Your task to perform on an android device: Go to sound settings Image 0: 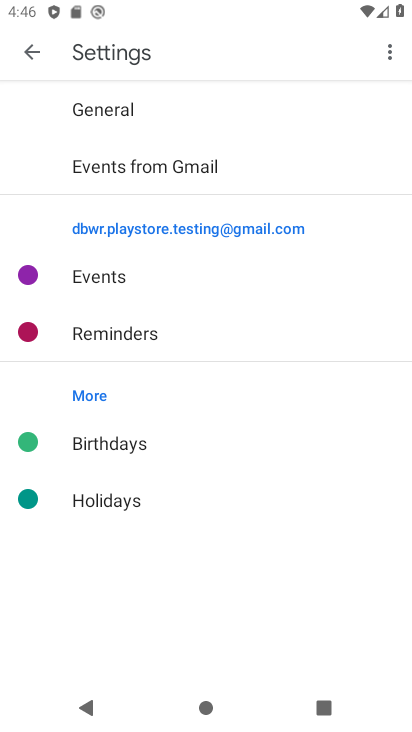
Step 0: drag from (270, 693) to (205, 240)
Your task to perform on an android device: Go to sound settings Image 1: 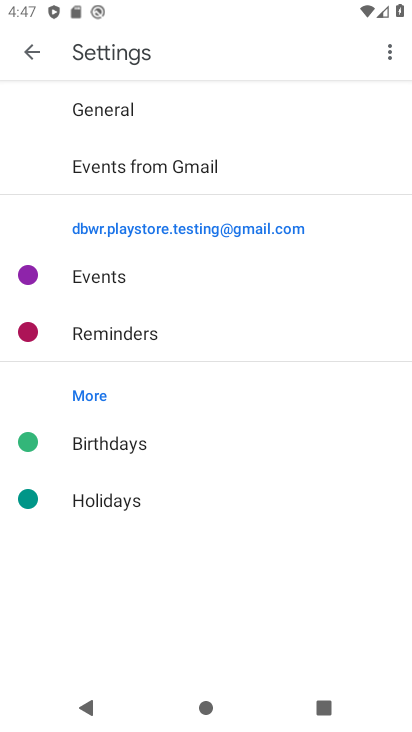
Step 1: click (33, 55)
Your task to perform on an android device: Go to sound settings Image 2: 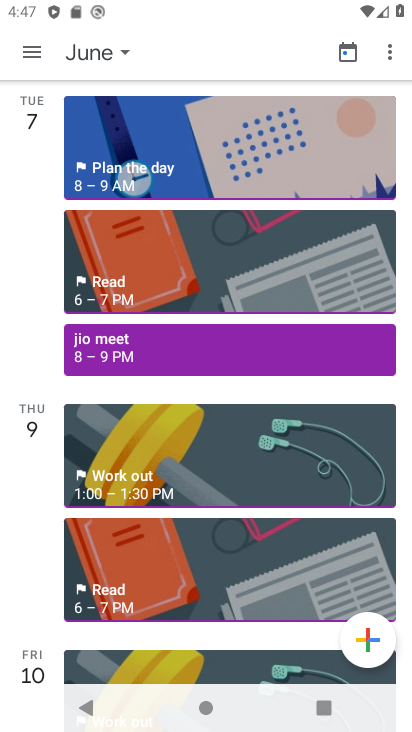
Step 2: press back button
Your task to perform on an android device: Go to sound settings Image 3: 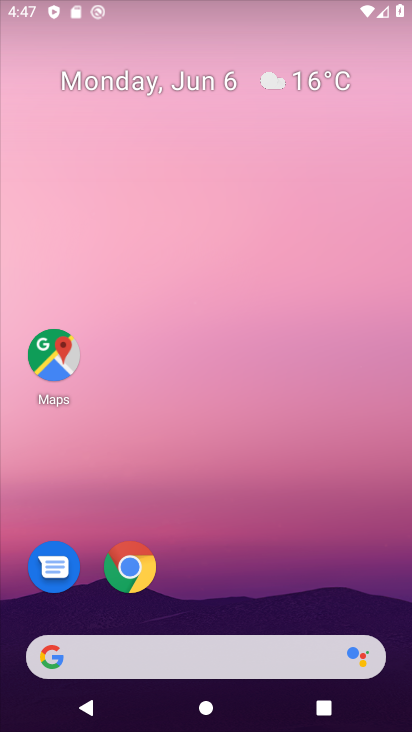
Step 3: drag from (234, 575) to (115, 91)
Your task to perform on an android device: Go to sound settings Image 4: 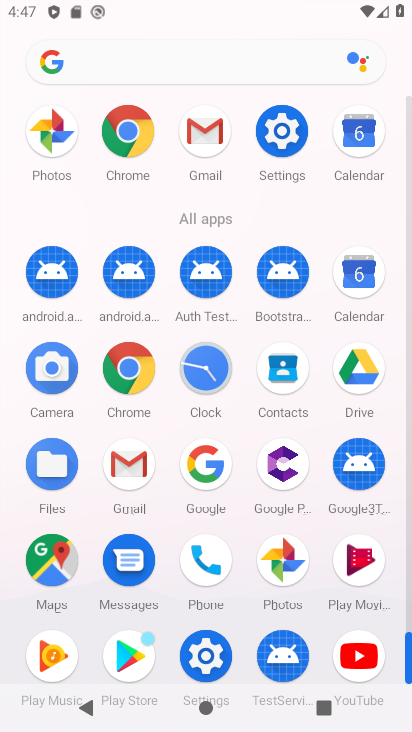
Step 4: click (286, 129)
Your task to perform on an android device: Go to sound settings Image 5: 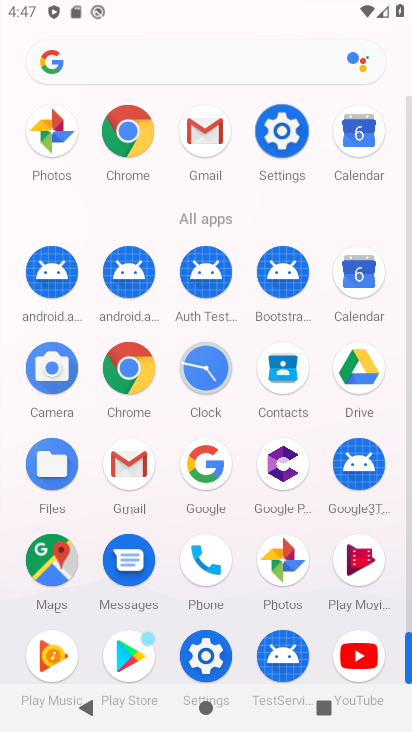
Step 5: click (286, 129)
Your task to perform on an android device: Go to sound settings Image 6: 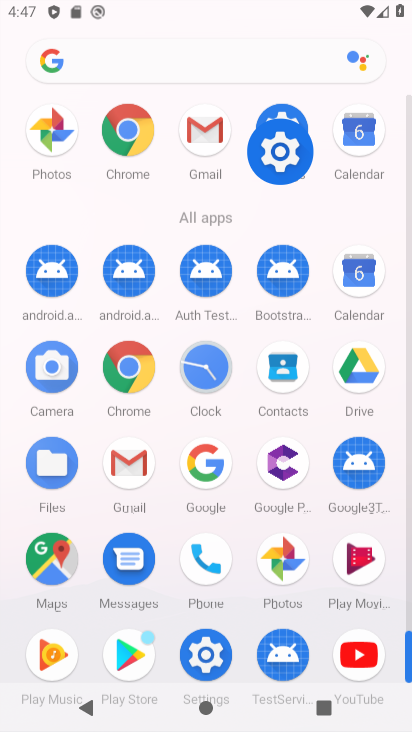
Step 6: click (286, 129)
Your task to perform on an android device: Go to sound settings Image 7: 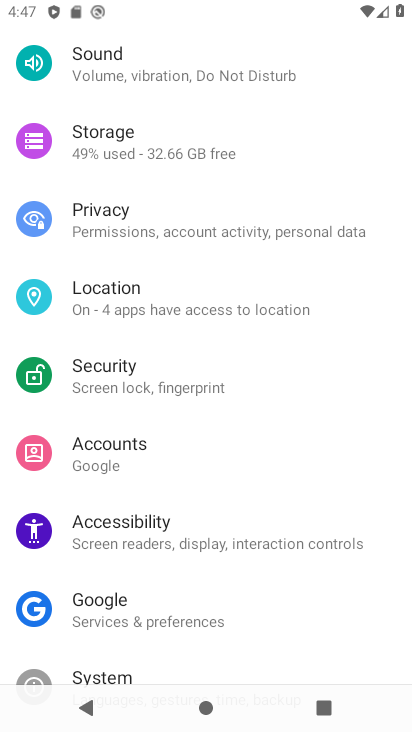
Step 7: click (286, 129)
Your task to perform on an android device: Go to sound settings Image 8: 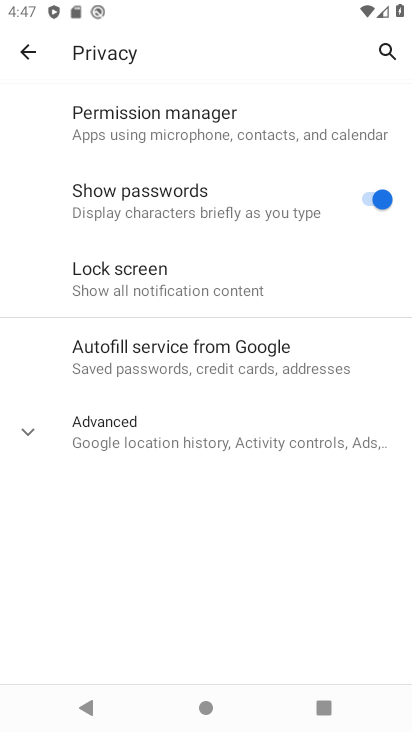
Step 8: click (25, 57)
Your task to perform on an android device: Go to sound settings Image 9: 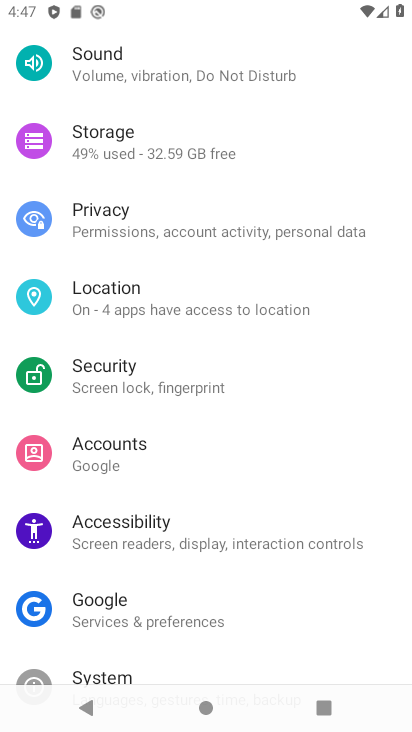
Step 9: click (102, 69)
Your task to perform on an android device: Go to sound settings Image 10: 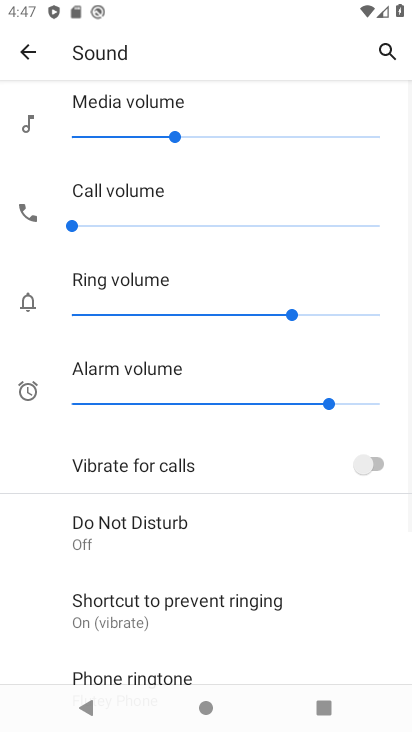
Step 10: drag from (184, 526) to (137, 152)
Your task to perform on an android device: Go to sound settings Image 11: 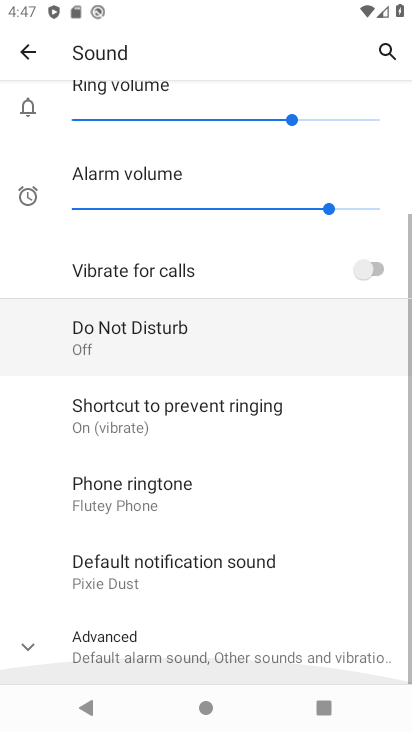
Step 11: drag from (136, 556) to (136, 261)
Your task to perform on an android device: Go to sound settings Image 12: 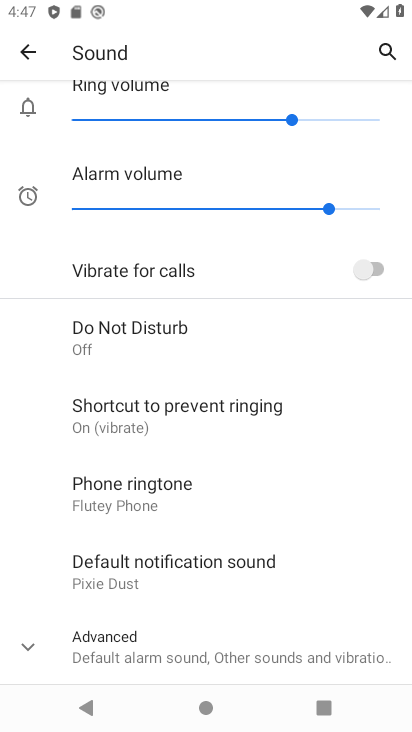
Step 12: click (103, 526)
Your task to perform on an android device: Go to sound settings Image 13: 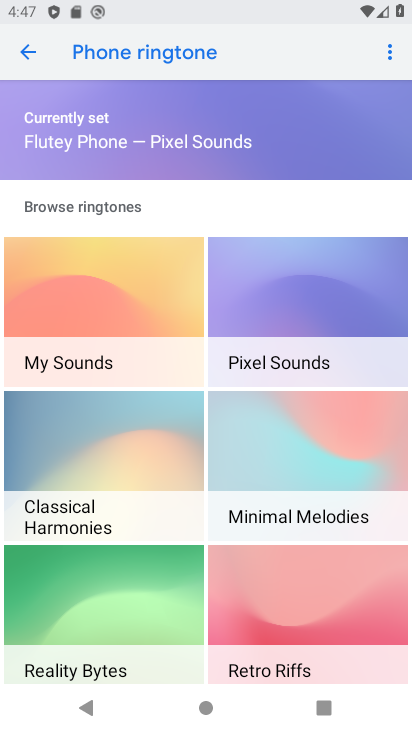
Step 13: click (27, 54)
Your task to perform on an android device: Go to sound settings Image 14: 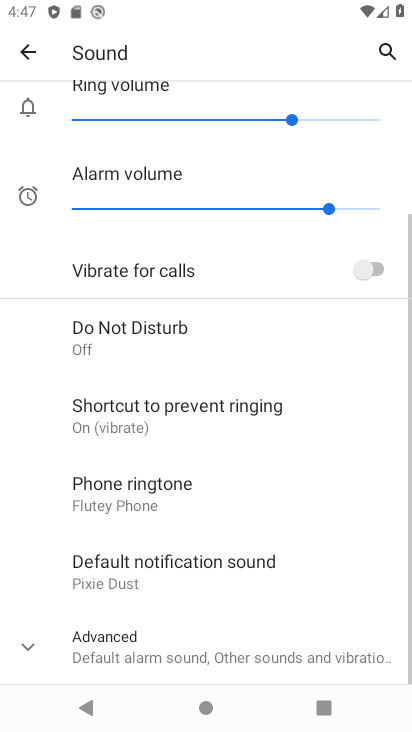
Step 14: click (112, 324)
Your task to perform on an android device: Go to sound settings Image 15: 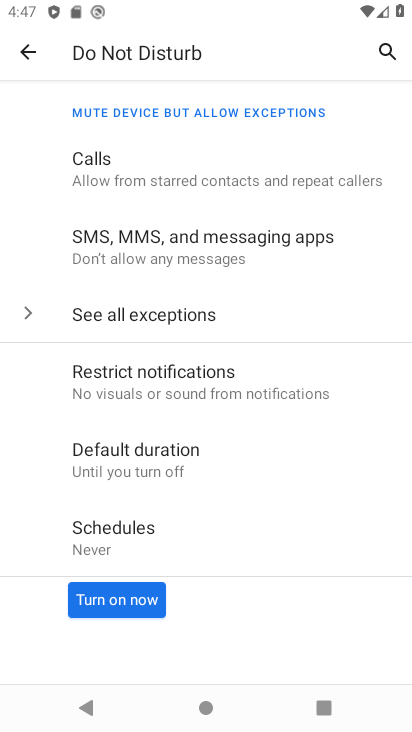
Step 15: click (124, 607)
Your task to perform on an android device: Go to sound settings Image 16: 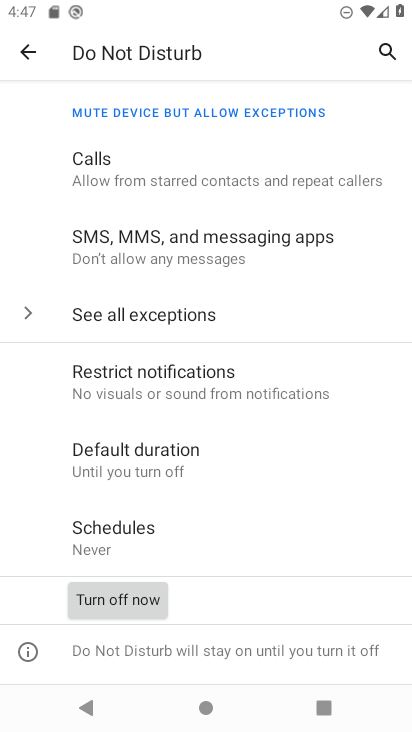
Step 16: task complete